Your task to perform on an android device: Open maps Image 0: 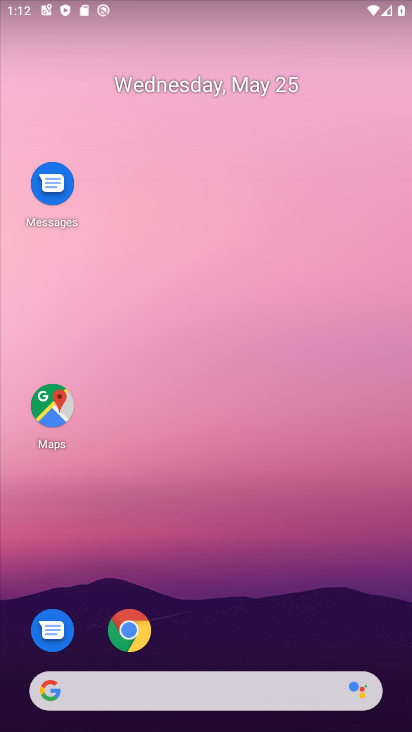
Step 0: drag from (388, 699) to (136, 126)
Your task to perform on an android device: Open maps Image 1: 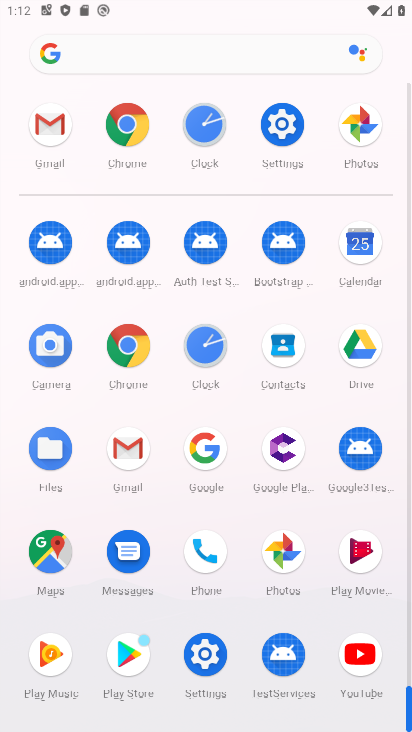
Step 1: click (55, 552)
Your task to perform on an android device: Open maps Image 2: 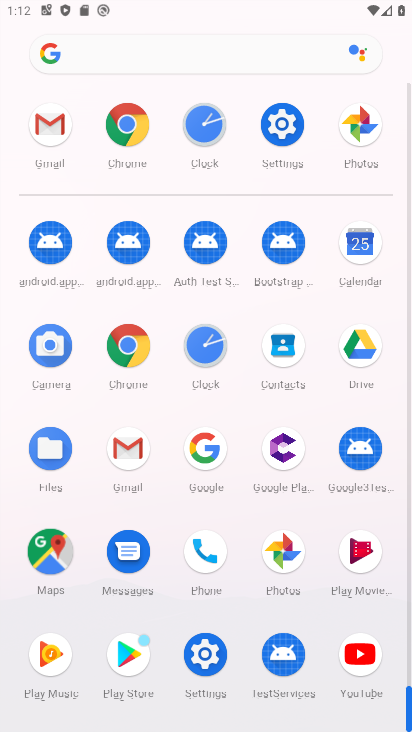
Step 2: click (51, 551)
Your task to perform on an android device: Open maps Image 3: 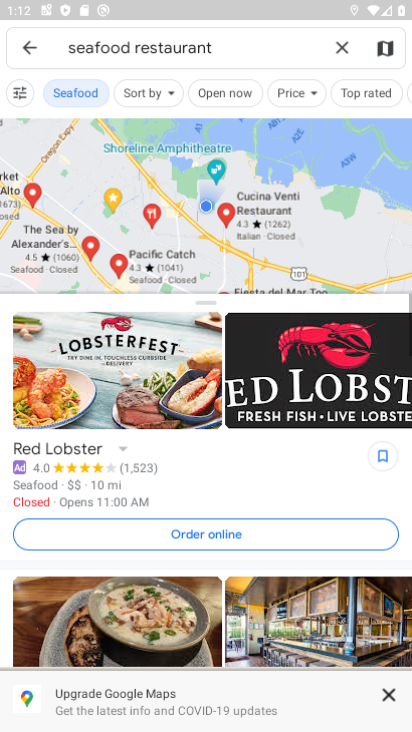
Step 3: task complete